Your task to perform on an android device: delete a single message in the gmail app Image 0: 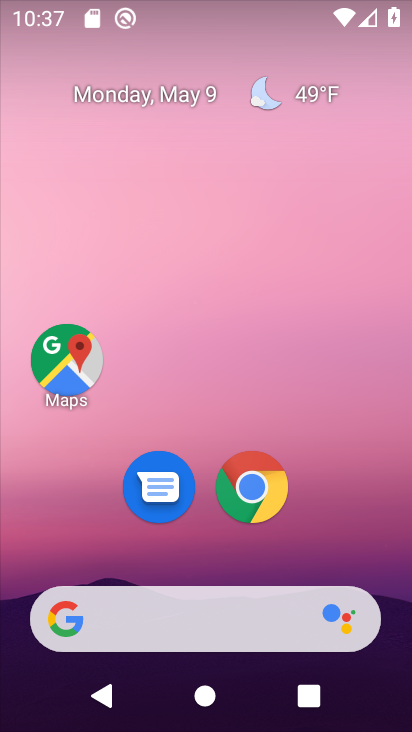
Step 0: drag from (330, 483) to (187, 114)
Your task to perform on an android device: delete a single message in the gmail app Image 1: 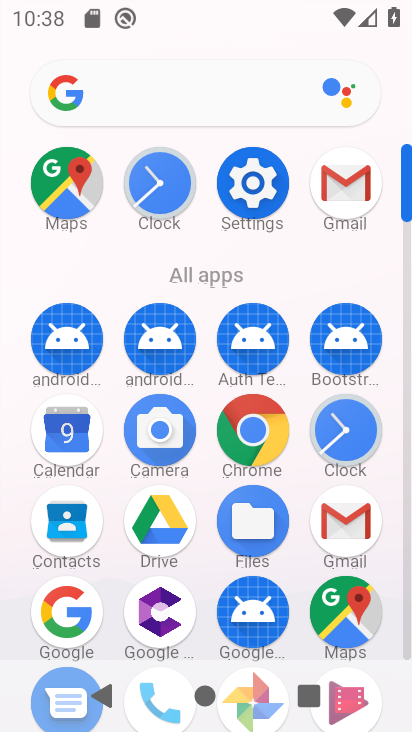
Step 1: click (336, 179)
Your task to perform on an android device: delete a single message in the gmail app Image 2: 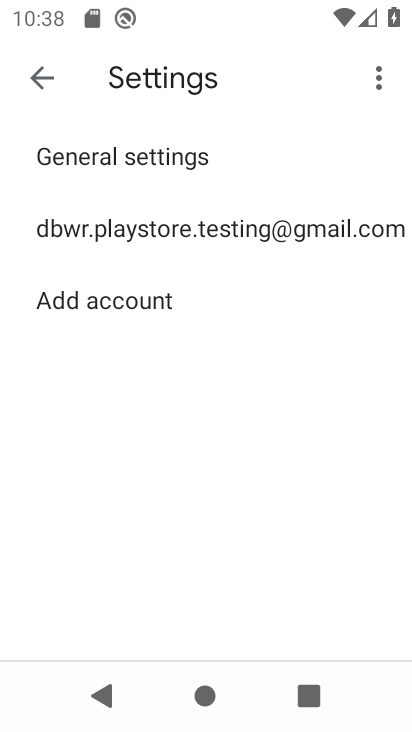
Step 2: task complete